Your task to perform on an android device: Open accessibility settings Image 0: 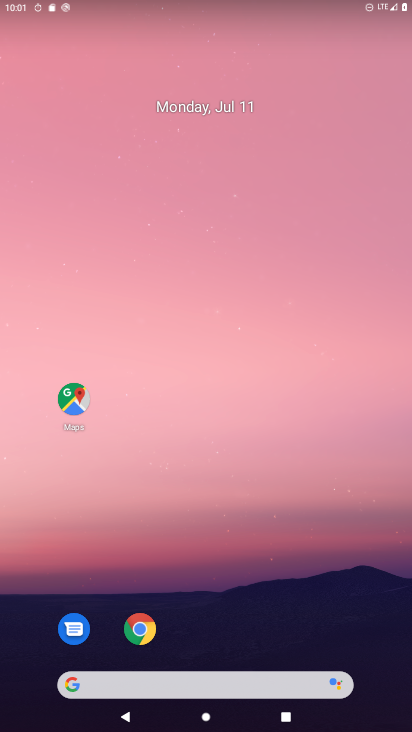
Step 0: drag from (182, 660) to (288, 162)
Your task to perform on an android device: Open accessibility settings Image 1: 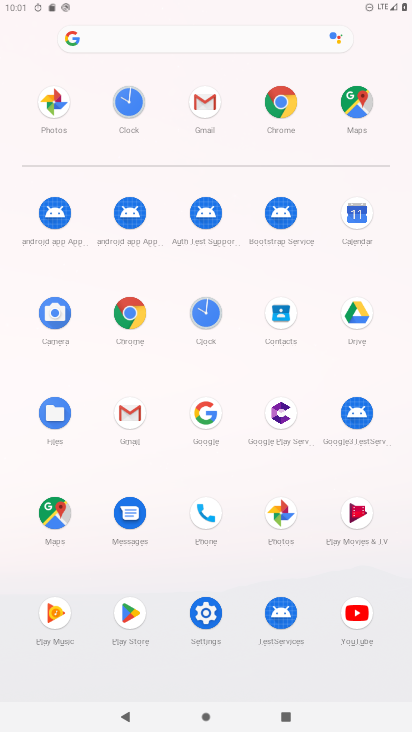
Step 1: click (198, 600)
Your task to perform on an android device: Open accessibility settings Image 2: 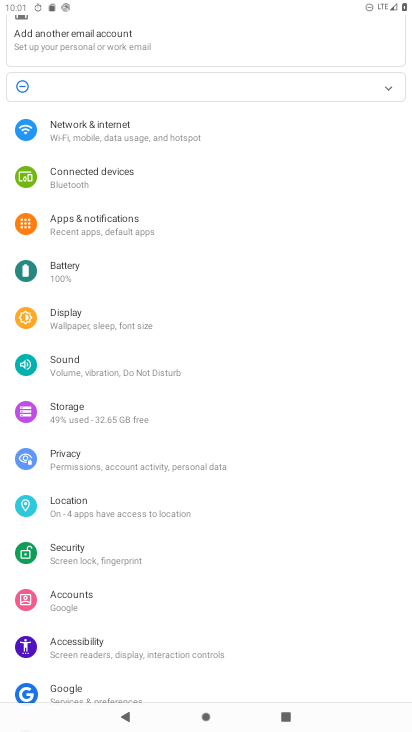
Step 2: click (90, 631)
Your task to perform on an android device: Open accessibility settings Image 3: 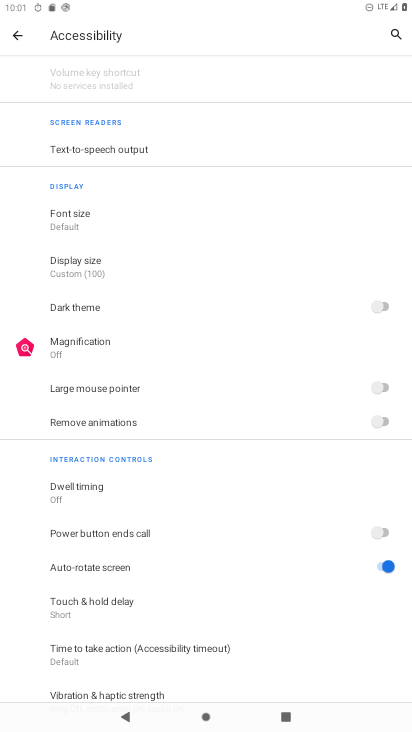
Step 3: task complete